Your task to perform on an android device: Go to internet settings Image 0: 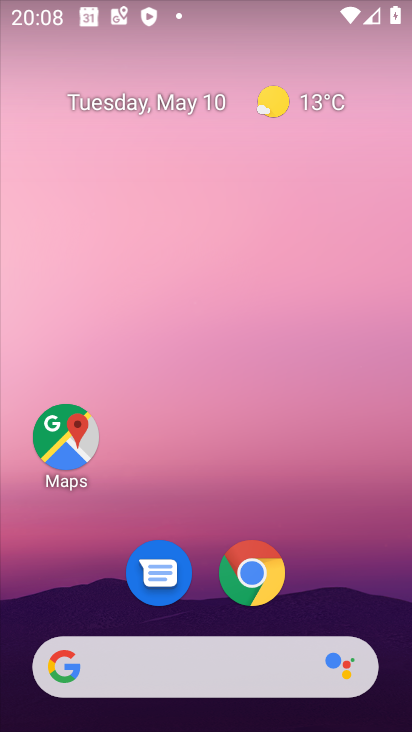
Step 0: drag from (360, 627) to (374, 3)
Your task to perform on an android device: Go to internet settings Image 1: 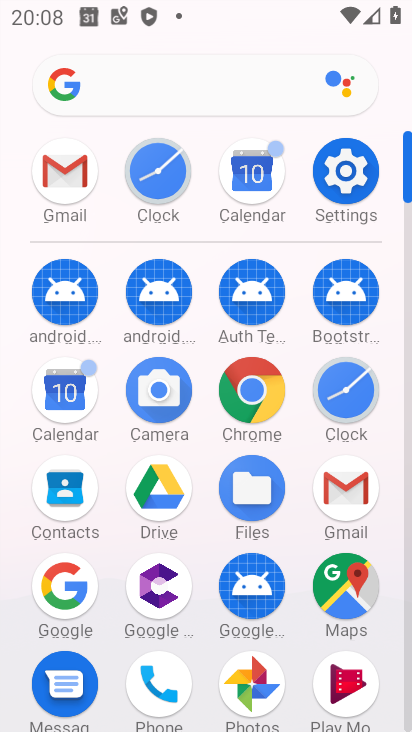
Step 1: click (345, 180)
Your task to perform on an android device: Go to internet settings Image 2: 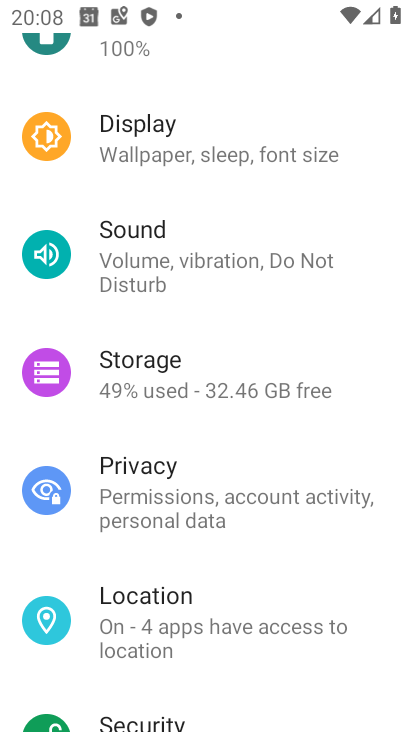
Step 2: drag from (372, 116) to (380, 540)
Your task to perform on an android device: Go to internet settings Image 3: 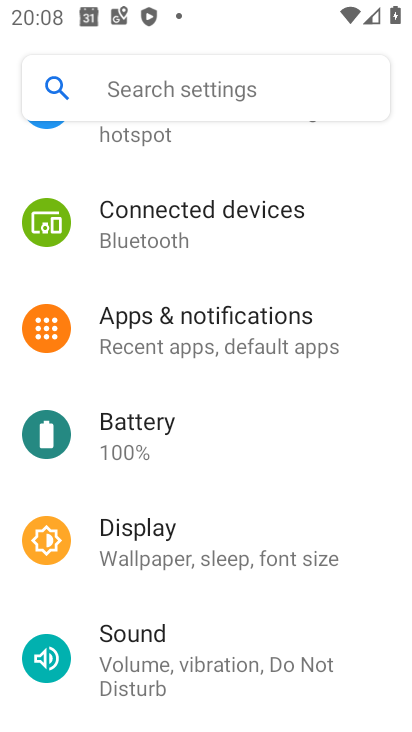
Step 3: drag from (376, 225) to (394, 647)
Your task to perform on an android device: Go to internet settings Image 4: 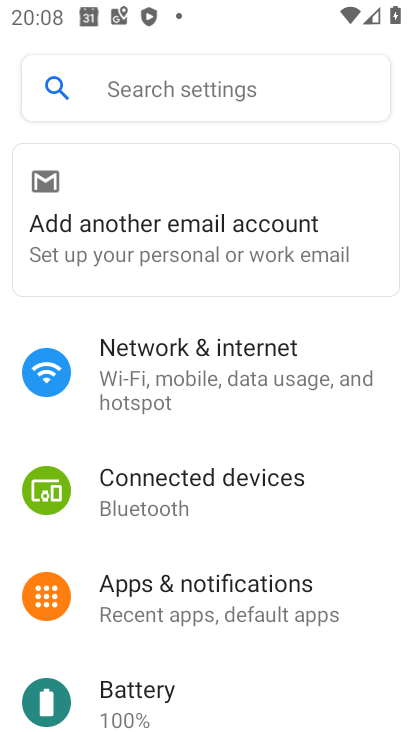
Step 4: click (210, 374)
Your task to perform on an android device: Go to internet settings Image 5: 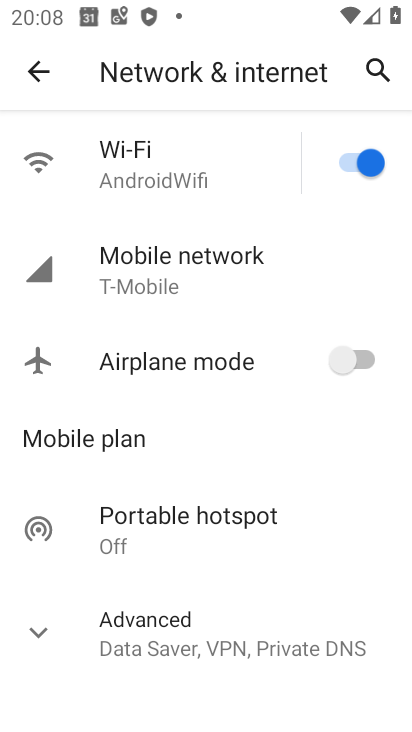
Step 5: click (28, 632)
Your task to perform on an android device: Go to internet settings Image 6: 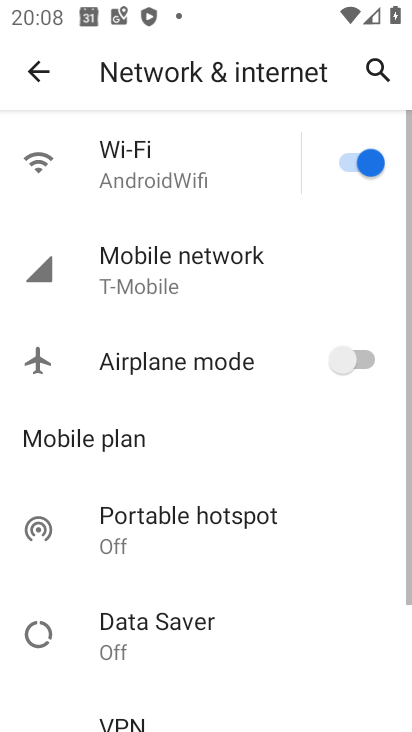
Step 6: task complete